Your task to perform on an android device: set an alarm Image 0: 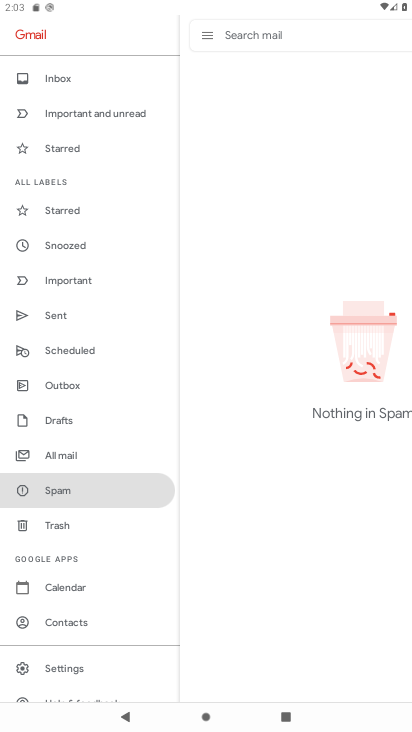
Step 0: press home button
Your task to perform on an android device: set an alarm Image 1: 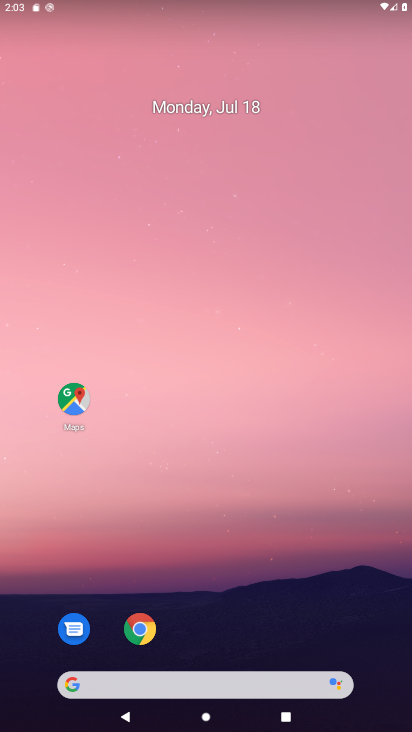
Step 1: drag from (210, 542) to (185, 218)
Your task to perform on an android device: set an alarm Image 2: 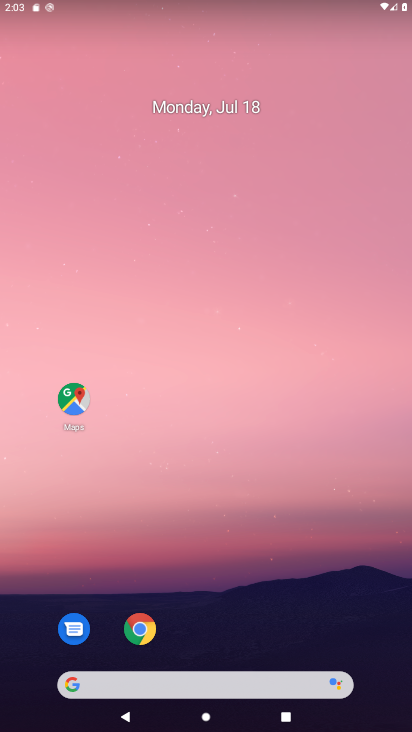
Step 2: drag from (189, 580) to (175, 78)
Your task to perform on an android device: set an alarm Image 3: 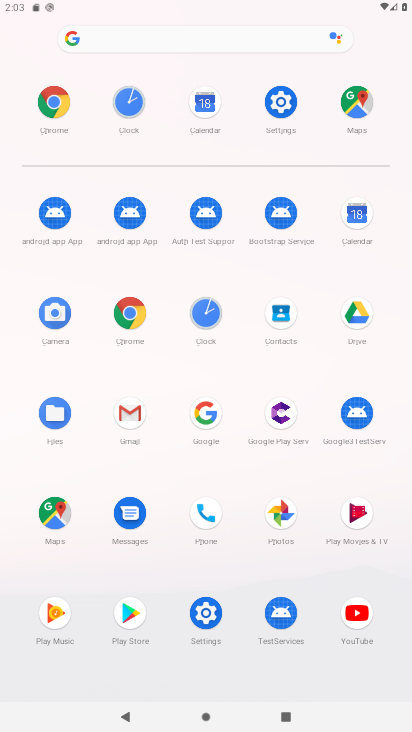
Step 3: click (129, 111)
Your task to perform on an android device: set an alarm Image 4: 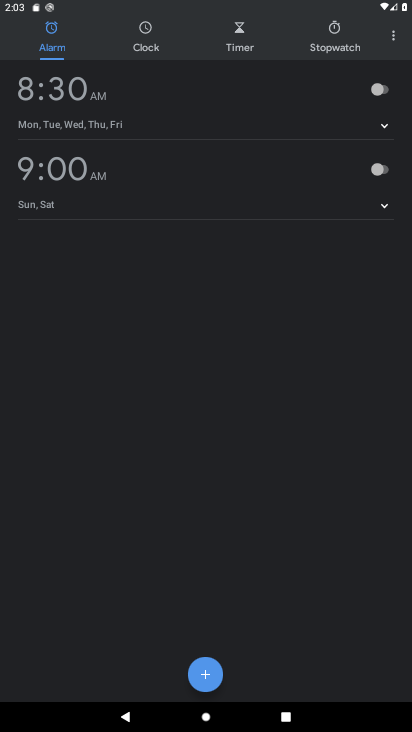
Step 4: click (388, 93)
Your task to perform on an android device: set an alarm Image 5: 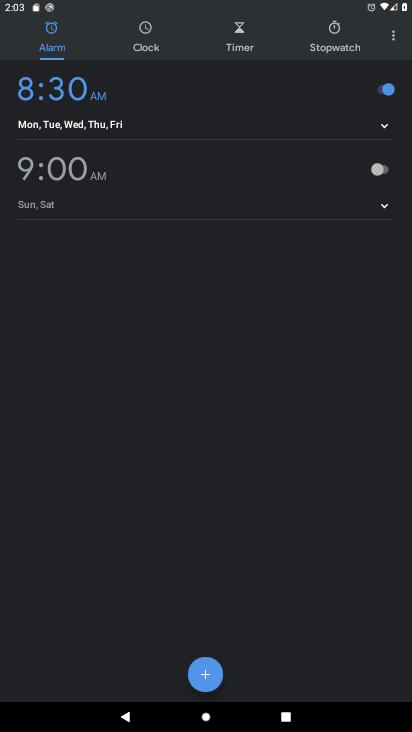
Step 5: task complete